Your task to perform on an android device: check storage Image 0: 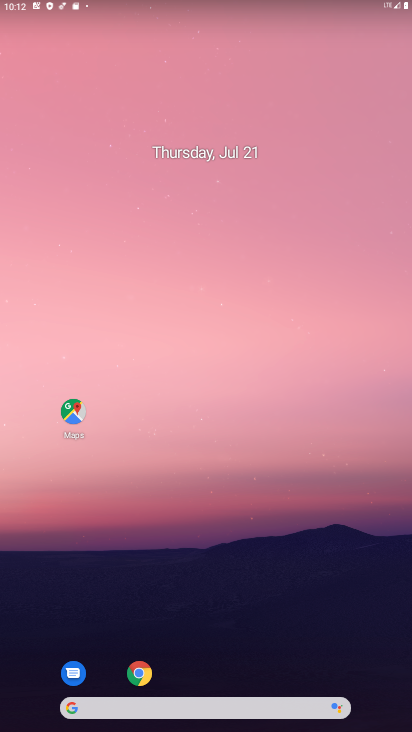
Step 0: drag from (216, 650) to (225, 204)
Your task to perform on an android device: check storage Image 1: 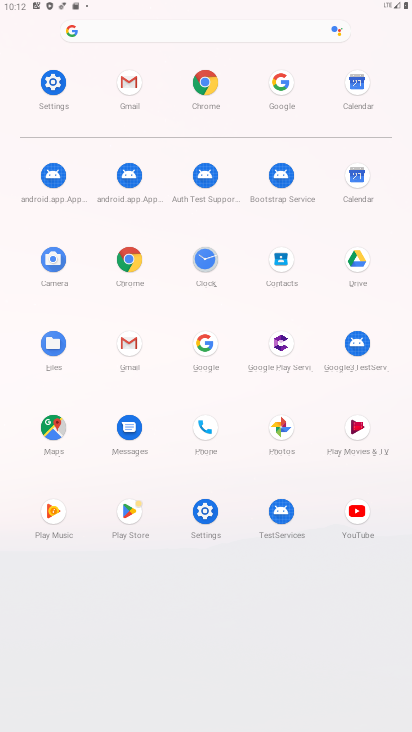
Step 1: click (62, 96)
Your task to perform on an android device: check storage Image 2: 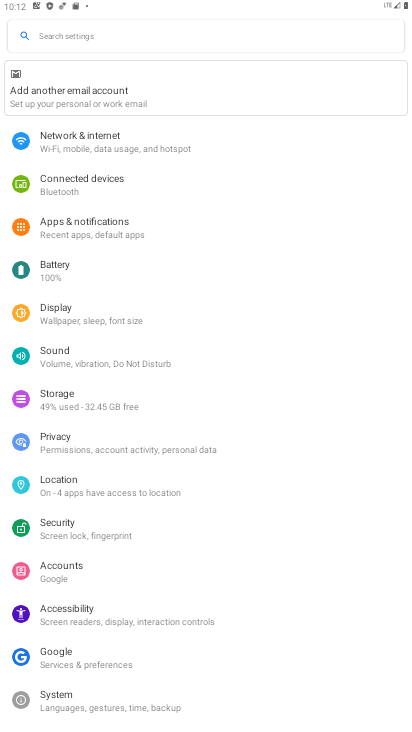
Step 2: click (76, 408)
Your task to perform on an android device: check storage Image 3: 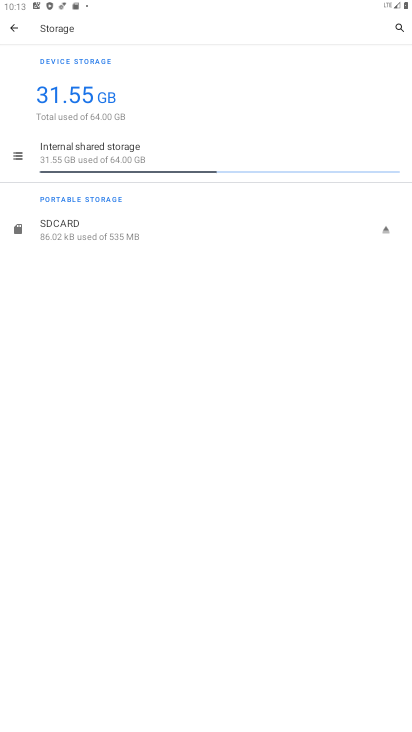
Step 3: click (271, 159)
Your task to perform on an android device: check storage Image 4: 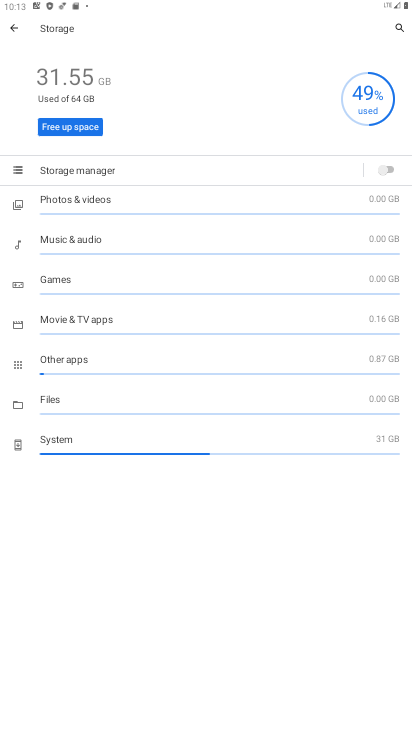
Step 4: task complete